Your task to perform on an android device: Search for vegetarian restaurants on Maps Image 0: 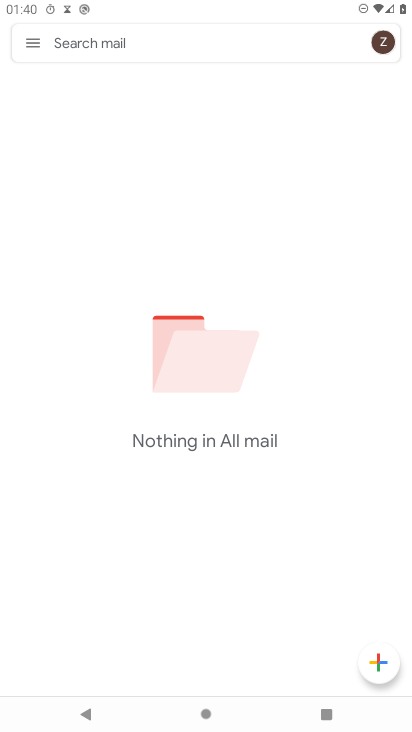
Step 0: press home button
Your task to perform on an android device: Search for vegetarian restaurants on Maps Image 1: 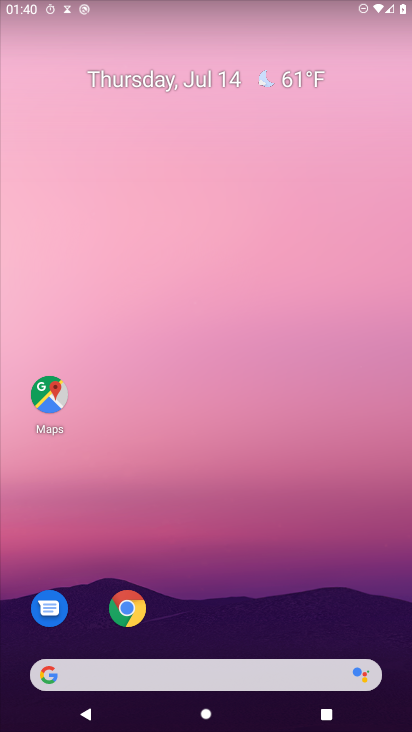
Step 1: drag from (231, 583) to (231, 63)
Your task to perform on an android device: Search for vegetarian restaurants on Maps Image 2: 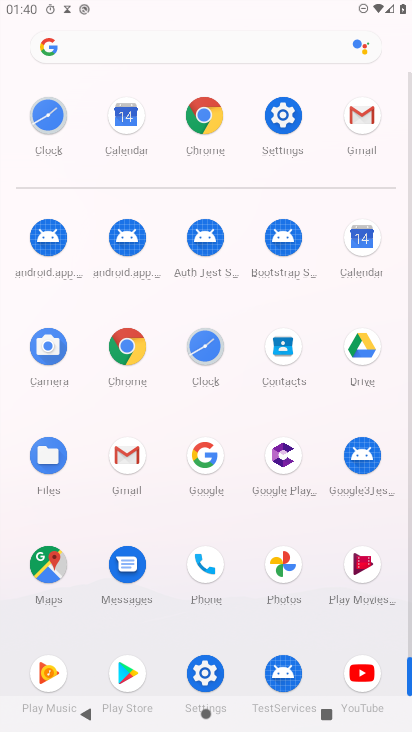
Step 2: click (51, 566)
Your task to perform on an android device: Search for vegetarian restaurants on Maps Image 3: 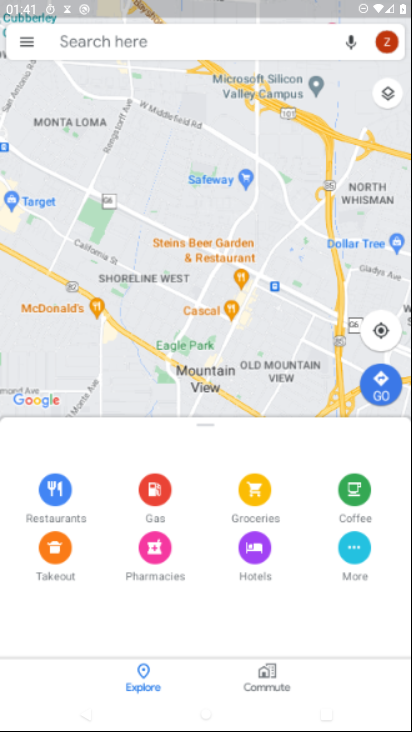
Step 3: click (197, 41)
Your task to perform on an android device: Search for vegetarian restaurants on Maps Image 4: 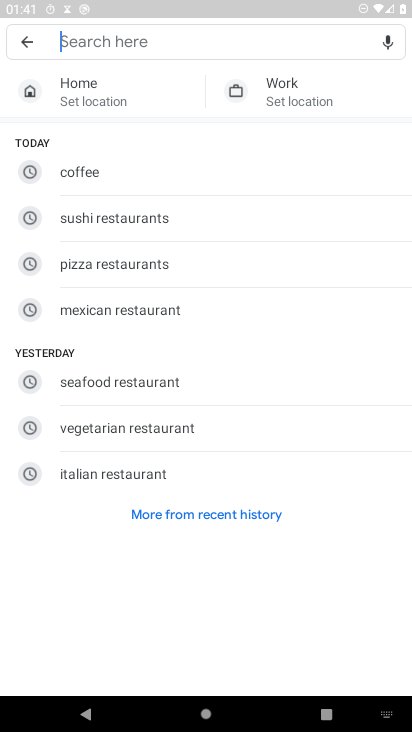
Step 4: type "vegetarian restaurants"
Your task to perform on an android device: Search for vegetarian restaurants on Maps Image 5: 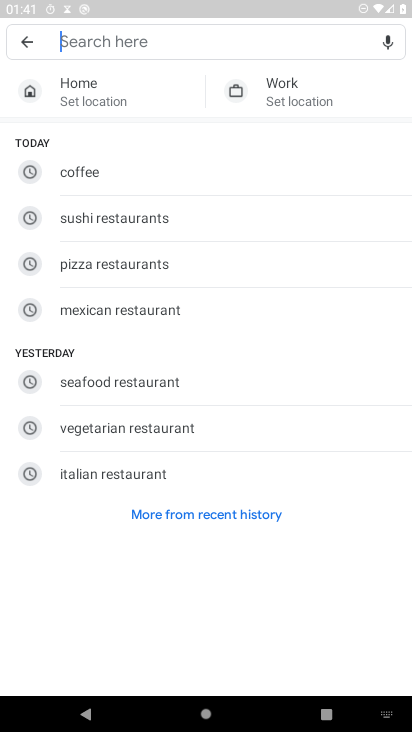
Step 5: click (144, 41)
Your task to perform on an android device: Search for vegetarian restaurants on Maps Image 6: 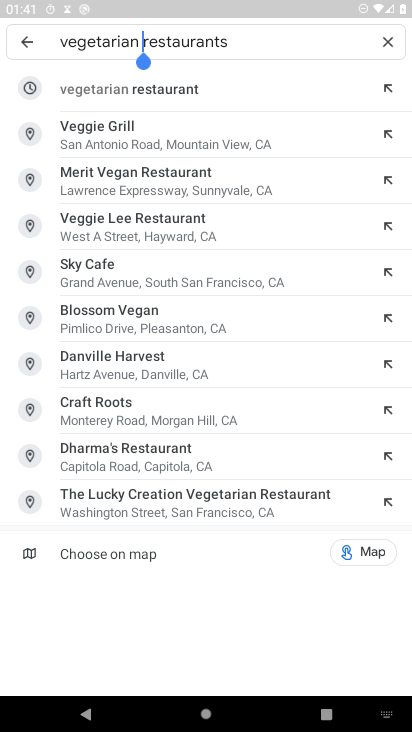
Step 6: click (172, 88)
Your task to perform on an android device: Search for vegetarian restaurants on Maps Image 7: 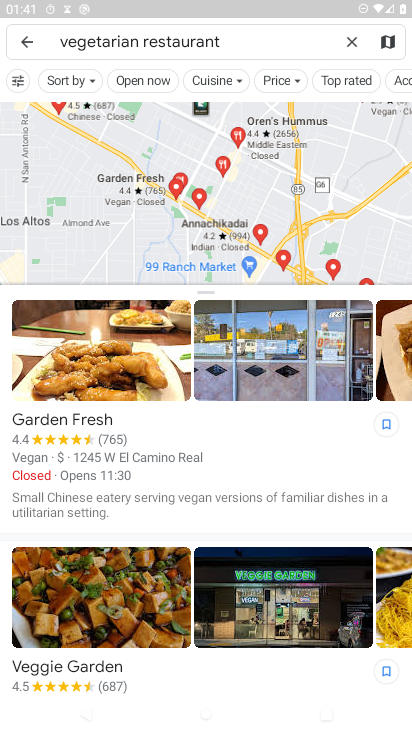
Step 7: task complete